Your task to perform on an android device: Check the news Image 0: 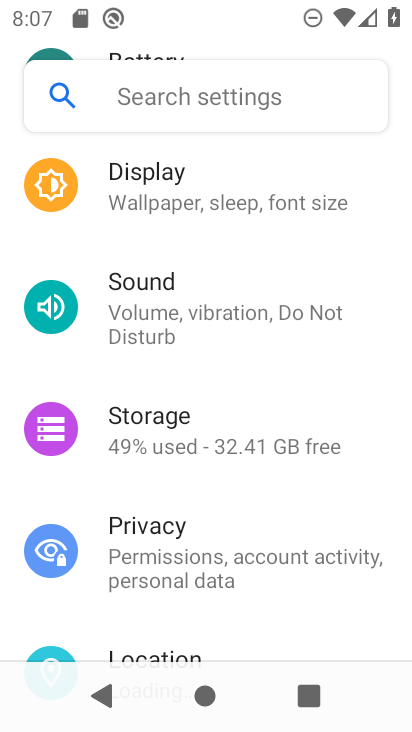
Step 0: press home button
Your task to perform on an android device: Check the news Image 1: 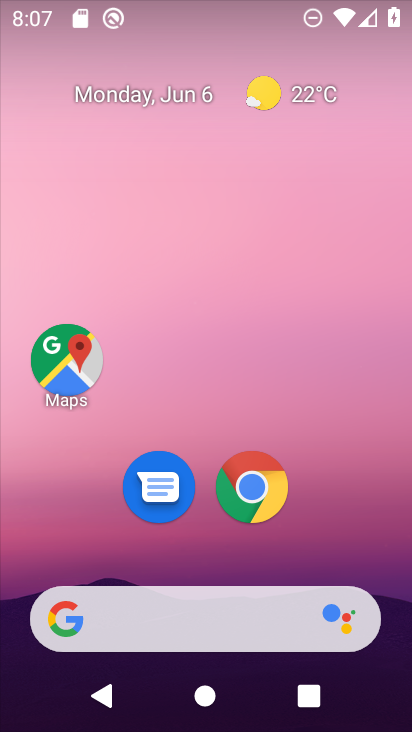
Step 1: drag from (402, 631) to (397, 75)
Your task to perform on an android device: Check the news Image 2: 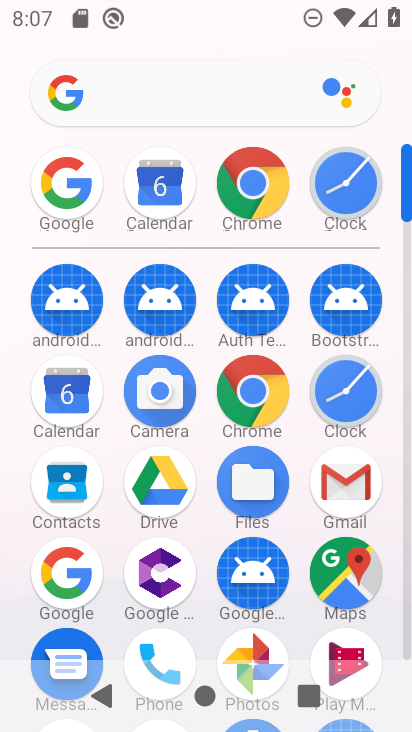
Step 2: click (97, 564)
Your task to perform on an android device: Check the news Image 3: 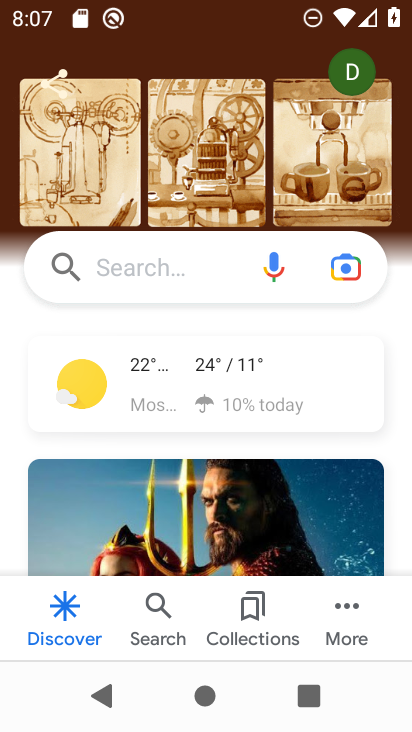
Step 3: click (126, 273)
Your task to perform on an android device: Check the news Image 4: 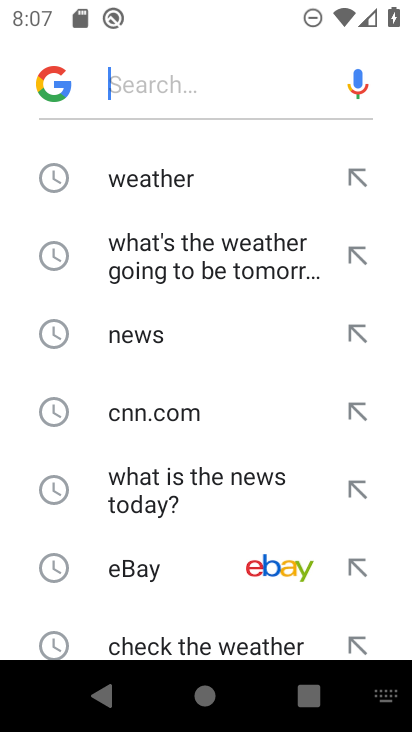
Step 4: drag from (158, 559) to (192, 428)
Your task to perform on an android device: Check the news Image 5: 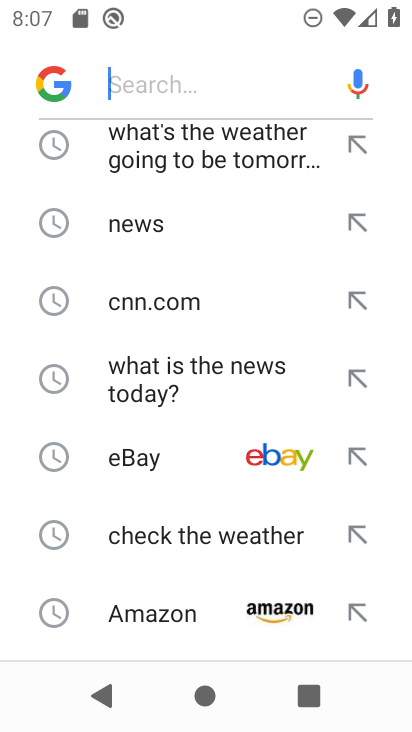
Step 5: click (153, 225)
Your task to perform on an android device: Check the news Image 6: 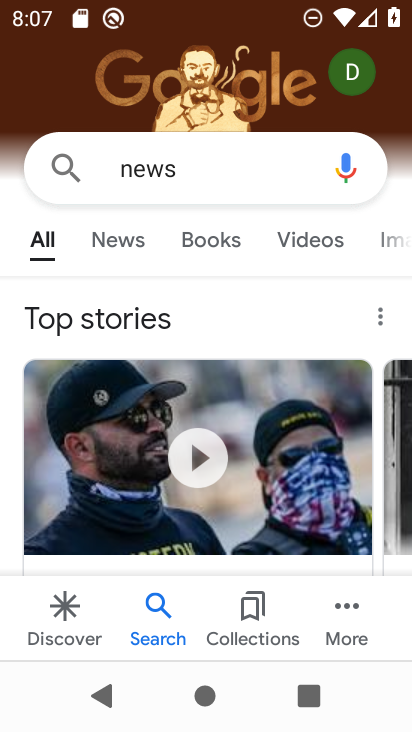
Step 6: task complete